Your task to perform on an android device: turn on translation in the chrome app Image 0: 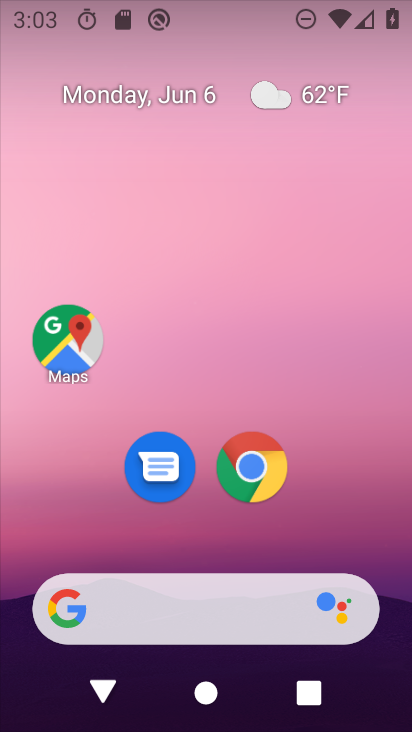
Step 0: drag from (205, 547) to (236, 201)
Your task to perform on an android device: turn on translation in the chrome app Image 1: 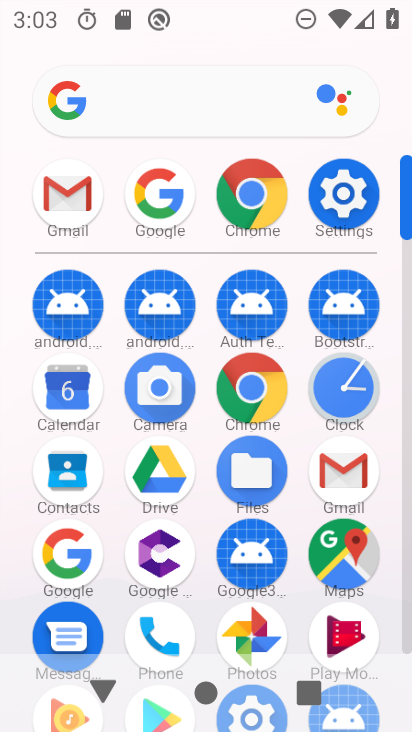
Step 1: click (249, 194)
Your task to perform on an android device: turn on translation in the chrome app Image 2: 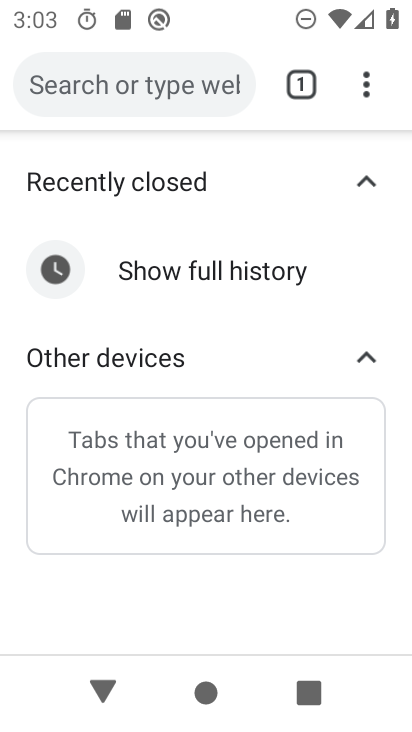
Step 2: click (364, 84)
Your task to perform on an android device: turn on translation in the chrome app Image 3: 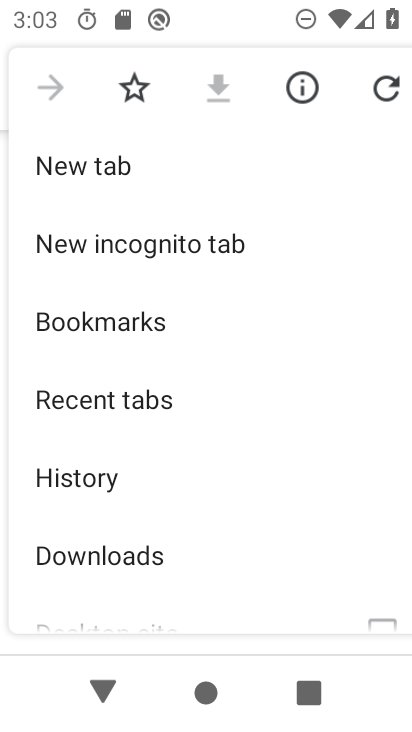
Step 3: drag from (133, 532) to (126, 215)
Your task to perform on an android device: turn on translation in the chrome app Image 4: 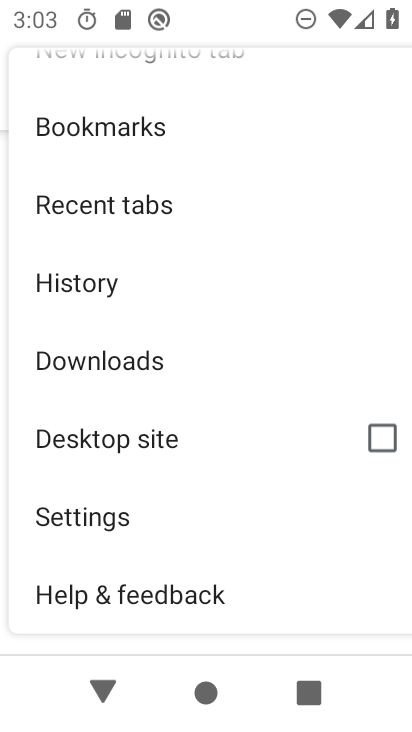
Step 4: click (101, 516)
Your task to perform on an android device: turn on translation in the chrome app Image 5: 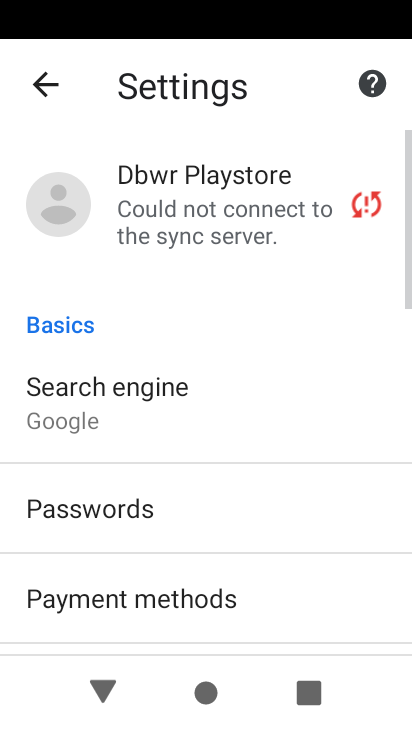
Step 5: drag from (156, 585) to (156, 300)
Your task to perform on an android device: turn on translation in the chrome app Image 6: 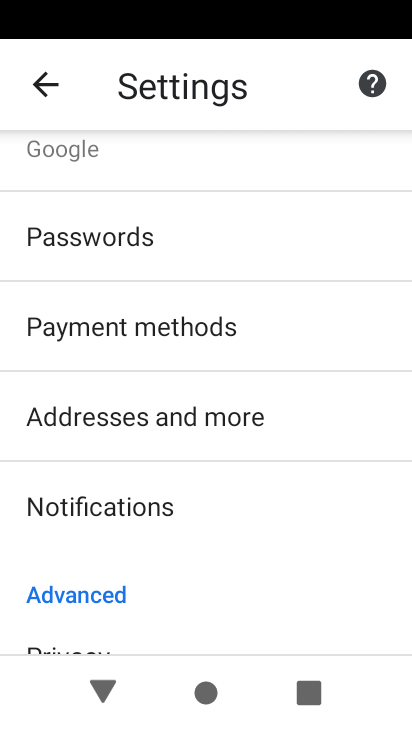
Step 6: drag from (147, 554) to (157, 251)
Your task to perform on an android device: turn on translation in the chrome app Image 7: 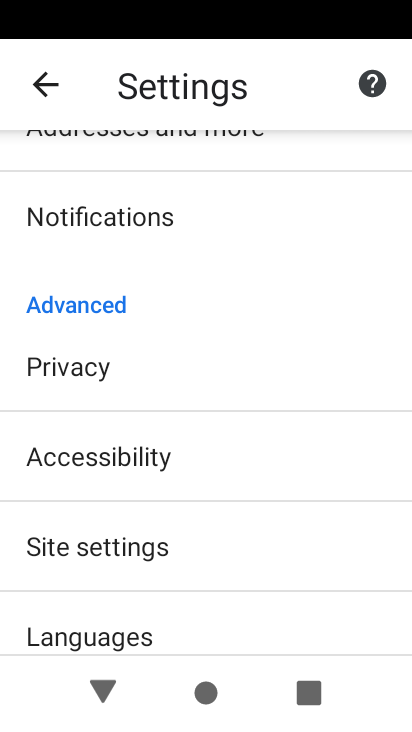
Step 7: drag from (149, 586) to (187, 314)
Your task to perform on an android device: turn on translation in the chrome app Image 8: 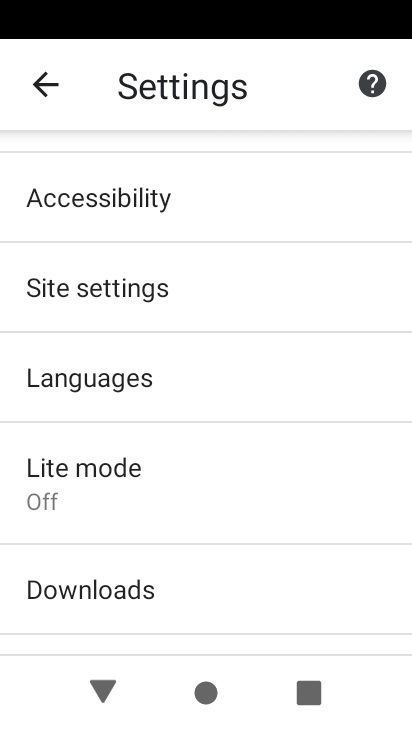
Step 8: click (107, 386)
Your task to perform on an android device: turn on translation in the chrome app Image 9: 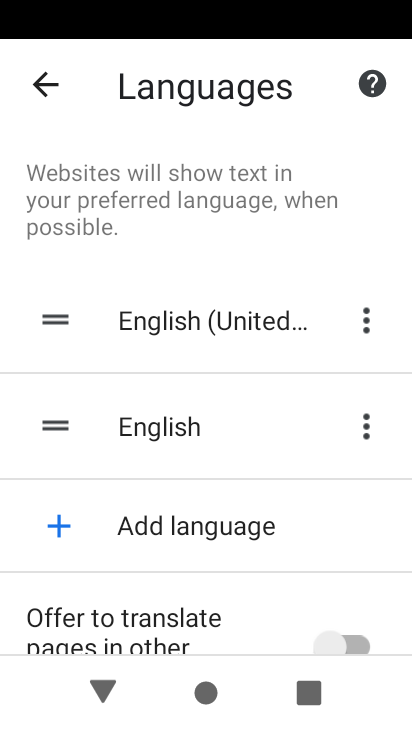
Step 9: click (365, 634)
Your task to perform on an android device: turn on translation in the chrome app Image 10: 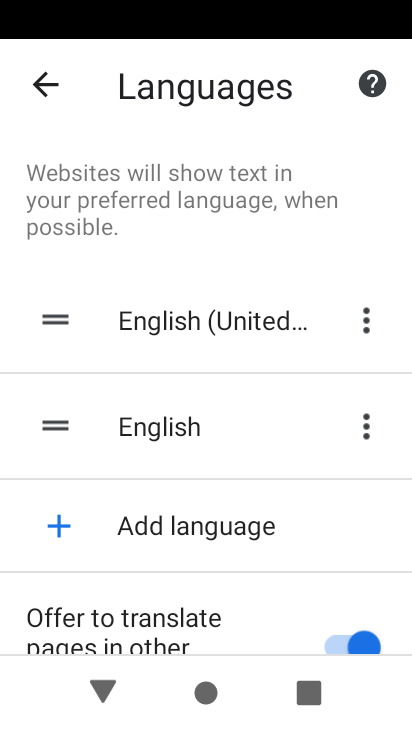
Step 10: task complete